Your task to perform on an android device: What does the iPhone 8 look like? Image 0: 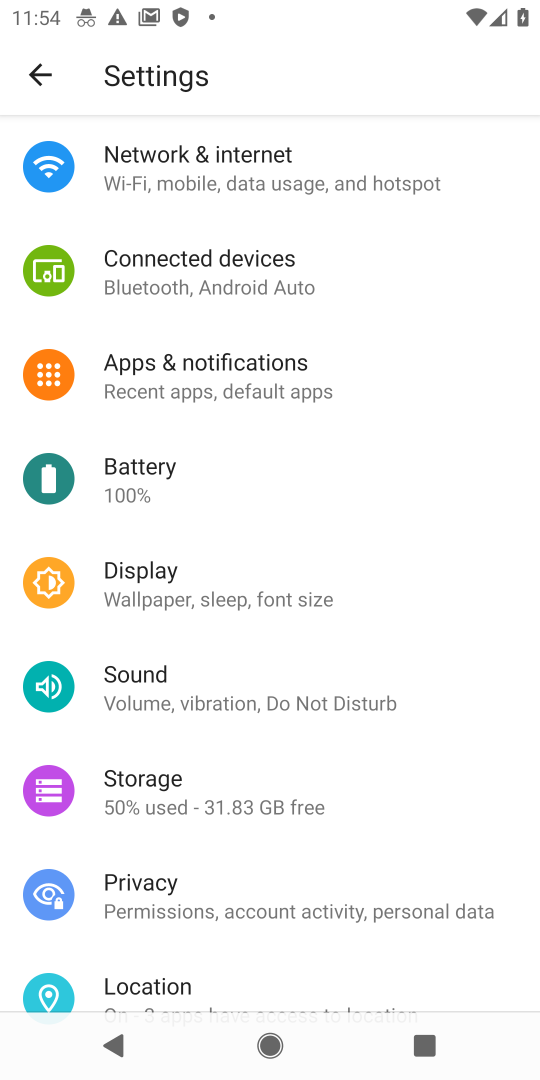
Step 0: press home button
Your task to perform on an android device: What does the iPhone 8 look like? Image 1: 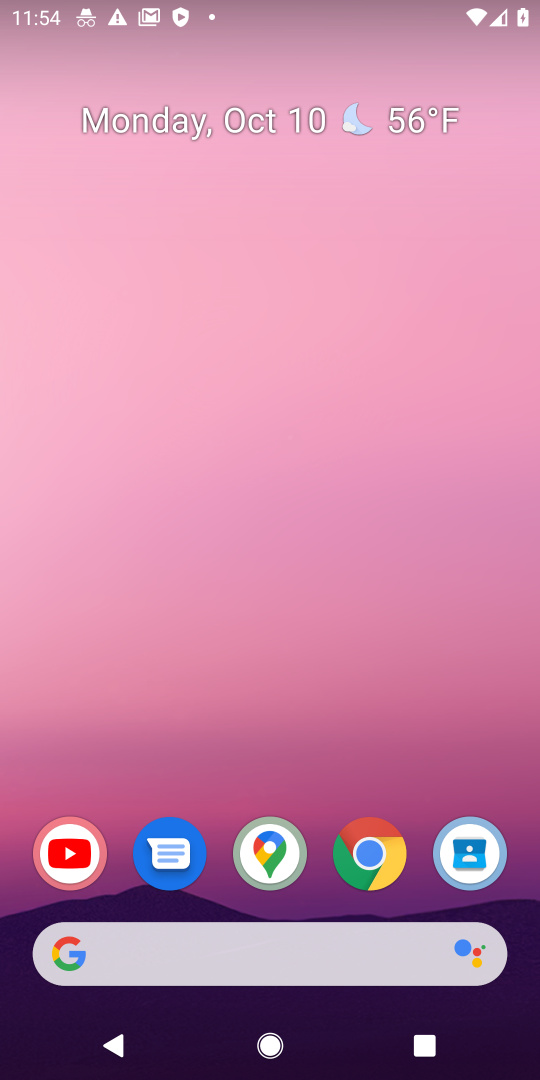
Step 1: click (312, 954)
Your task to perform on an android device: What does the iPhone 8 look like? Image 2: 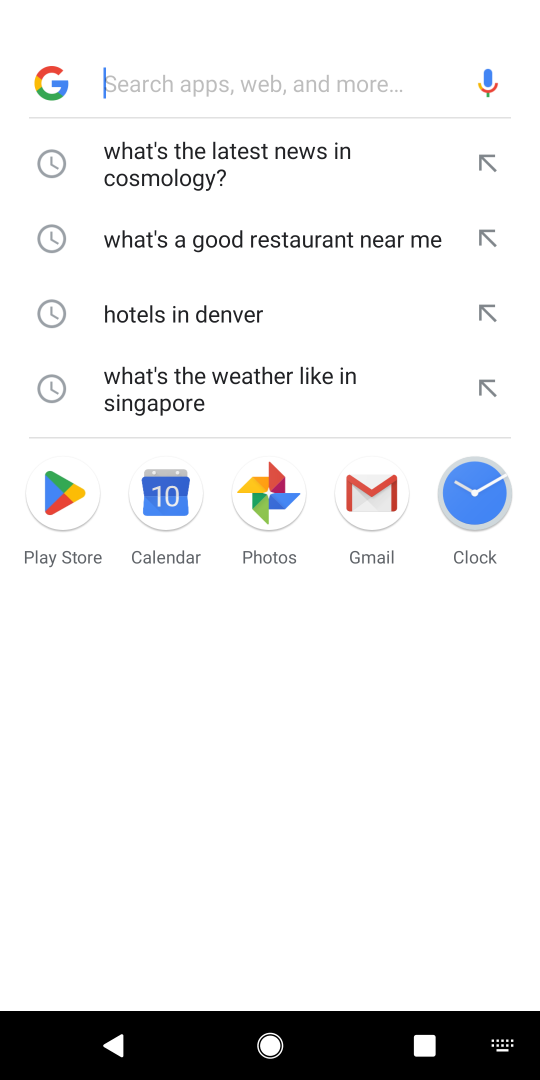
Step 2: type "What does the iPhone 8 look like"
Your task to perform on an android device: What does the iPhone 8 look like? Image 3: 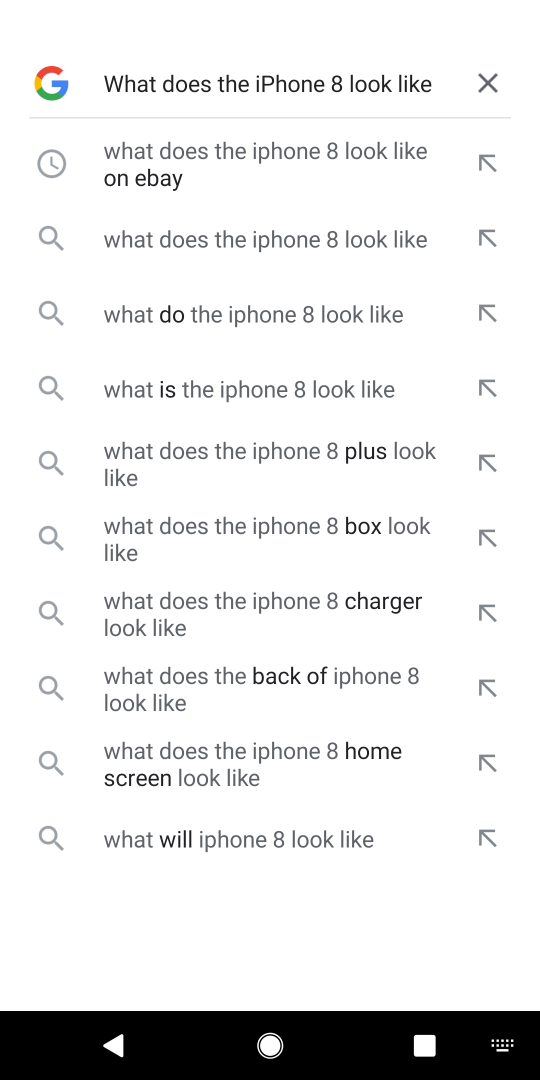
Step 3: press enter
Your task to perform on an android device: What does the iPhone 8 look like? Image 4: 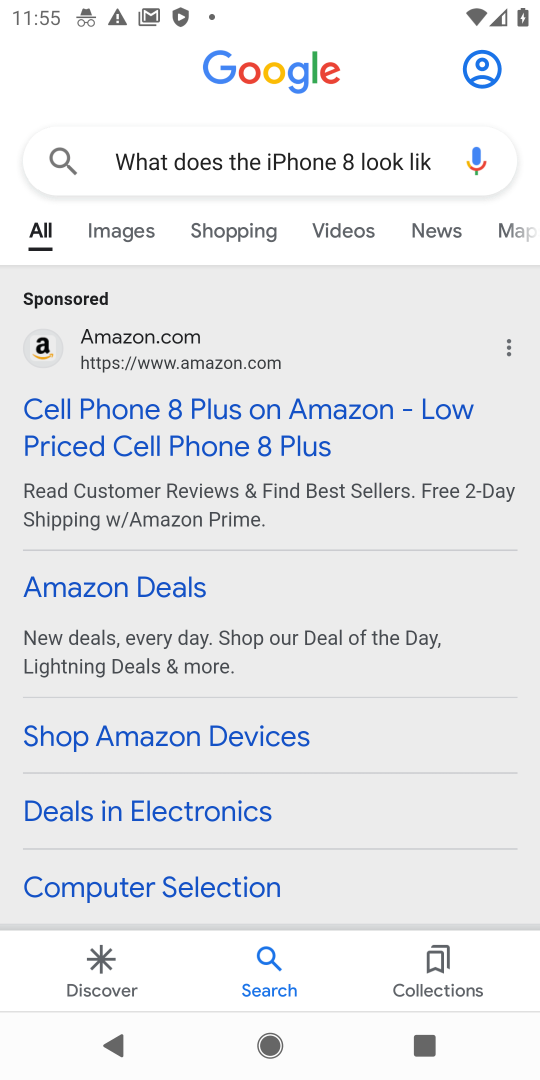
Step 4: click (235, 425)
Your task to perform on an android device: What does the iPhone 8 look like? Image 5: 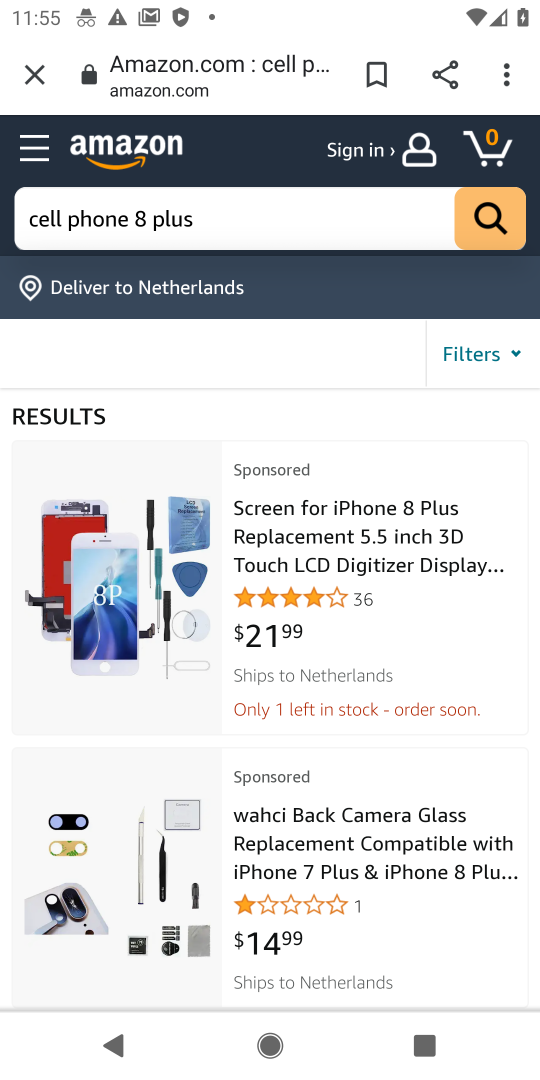
Step 5: task complete